Your task to perform on an android device: turn pop-ups off in chrome Image 0: 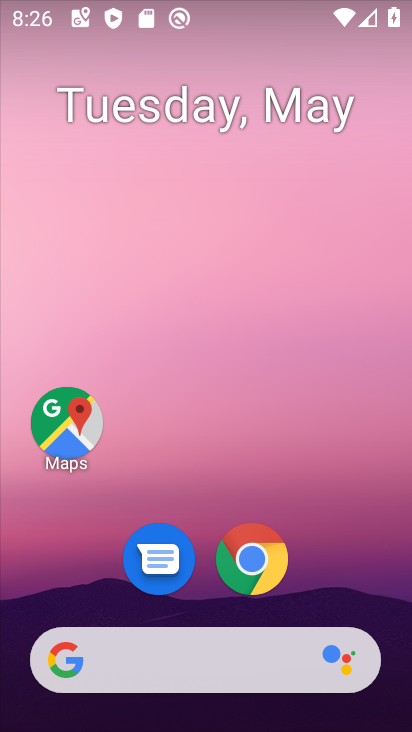
Step 0: click (232, 569)
Your task to perform on an android device: turn pop-ups off in chrome Image 1: 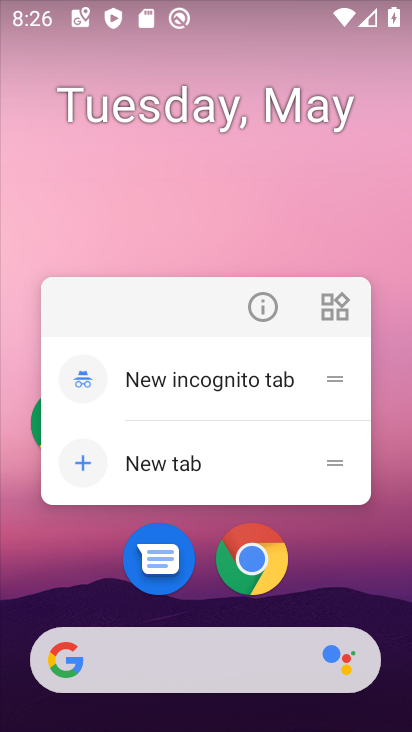
Step 1: click (232, 569)
Your task to perform on an android device: turn pop-ups off in chrome Image 2: 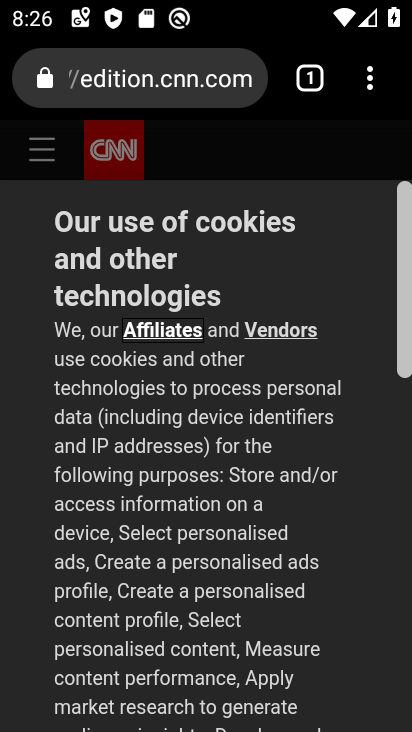
Step 2: drag from (371, 70) to (115, 612)
Your task to perform on an android device: turn pop-ups off in chrome Image 3: 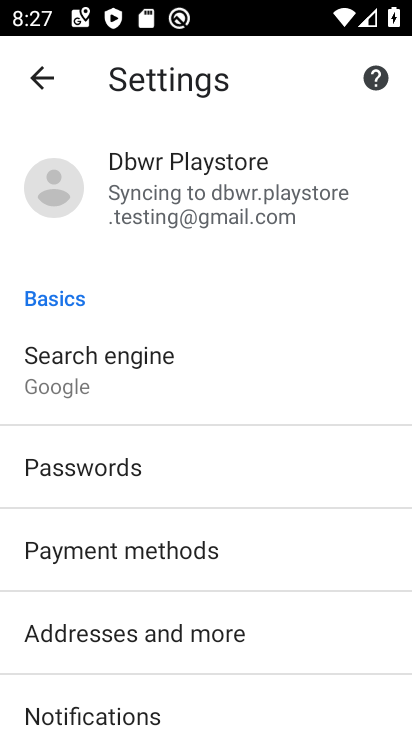
Step 3: drag from (141, 662) to (243, 196)
Your task to perform on an android device: turn pop-ups off in chrome Image 4: 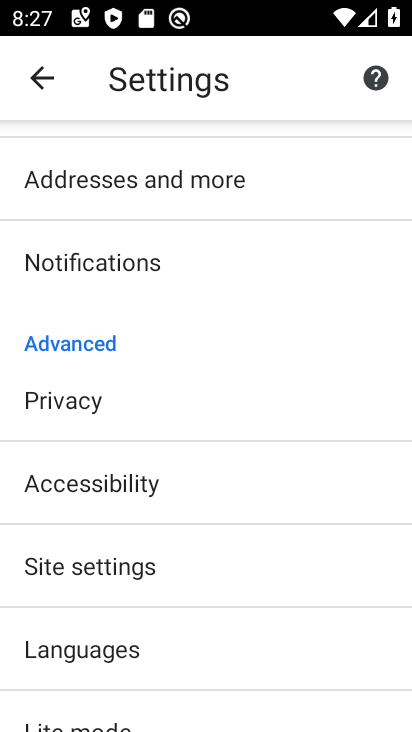
Step 4: click (145, 557)
Your task to perform on an android device: turn pop-ups off in chrome Image 5: 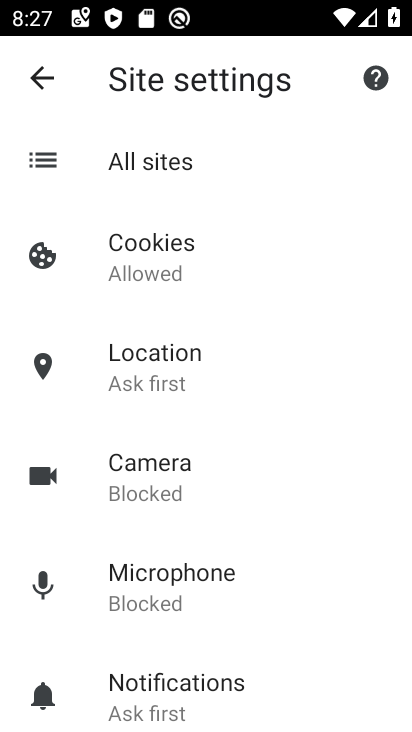
Step 5: drag from (211, 628) to (212, 253)
Your task to perform on an android device: turn pop-ups off in chrome Image 6: 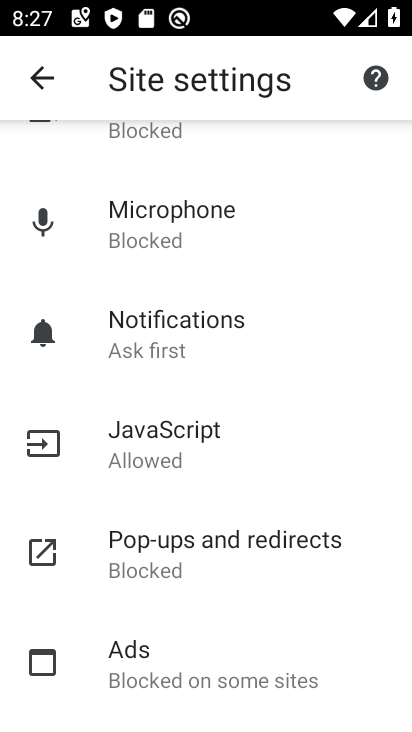
Step 6: click (186, 572)
Your task to perform on an android device: turn pop-ups off in chrome Image 7: 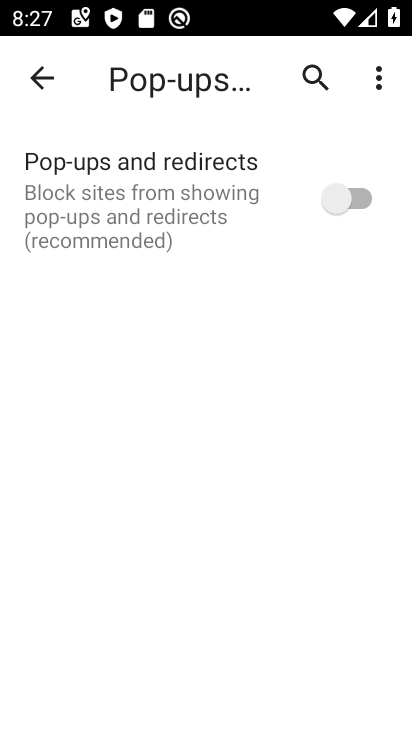
Step 7: task complete